Your task to perform on an android device: turn vacation reply on in the gmail app Image 0: 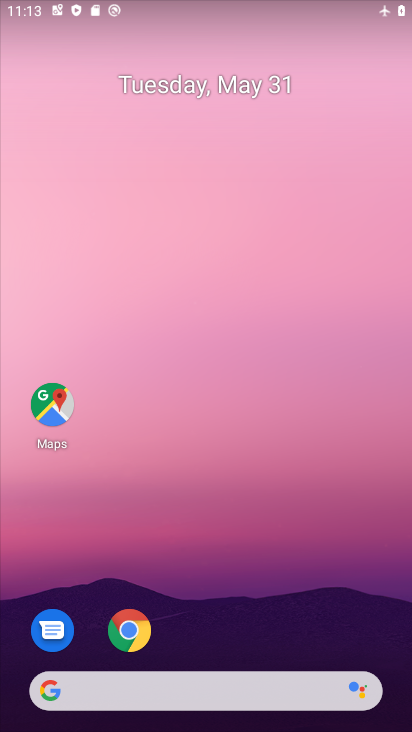
Step 0: drag from (243, 643) to (224, 144)
Your task to perform on an android device: turn vacation reply on in the gmail app Image 1: 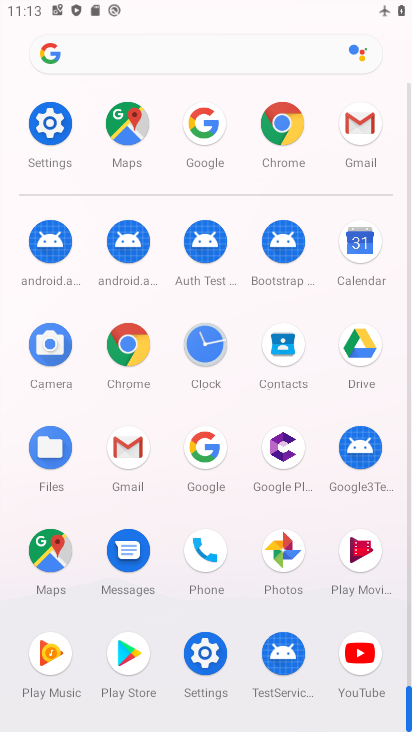
Step 1: click (372, 127)
Your task to perform on an android device: turn vacation reply on in the gmail app Image 2: 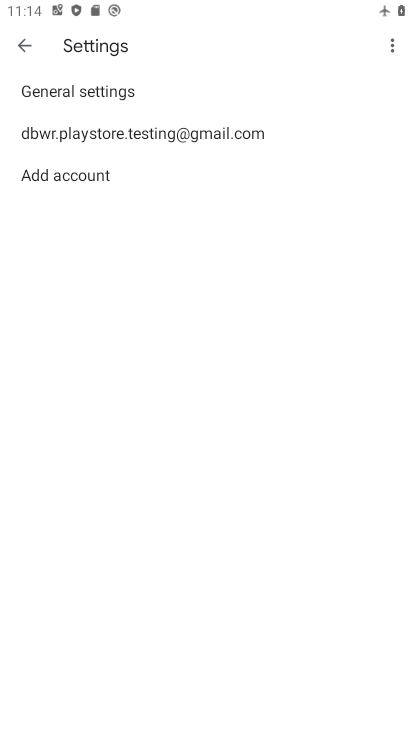
Step 2: click (83, 137)
Your task to perform on an android device: turn vacation reply on in the gmail app Image 3: 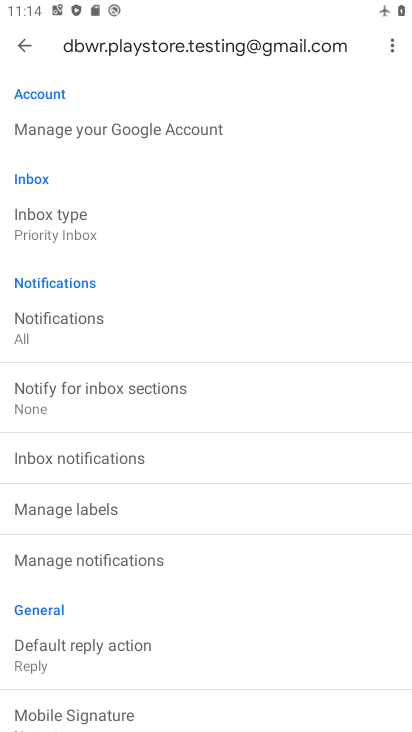
Step 3: drag from (107, 495) to (159, 208)
Your task to perform on an android device: turn vacation reply on in the gmail app Image 4: 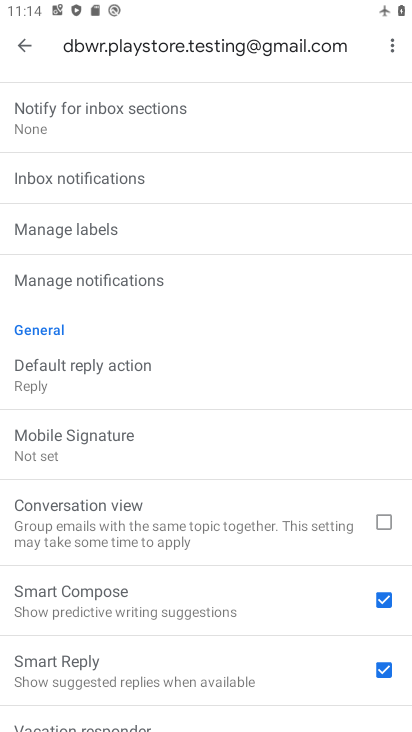
Step 4: drag from (159, 537) to (181, 286)
Your task to perform on an android device: turn vacation reply on in the gmail app Image 5: 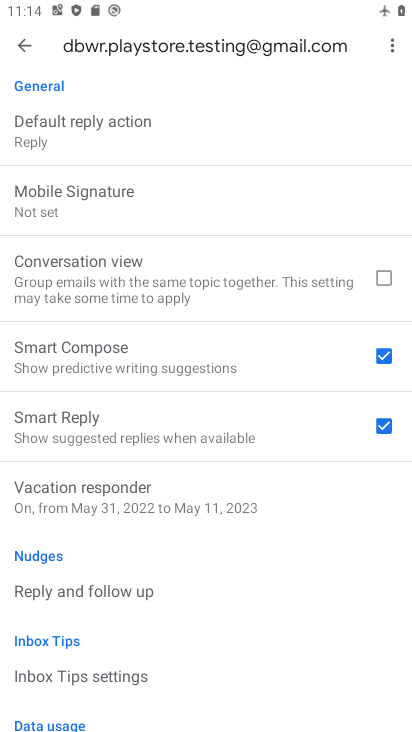
Step 5: drag from (171, 514) to (188, 461)
Your task to perform on an android device: turn vacation reply on in the gmail app Image 6: 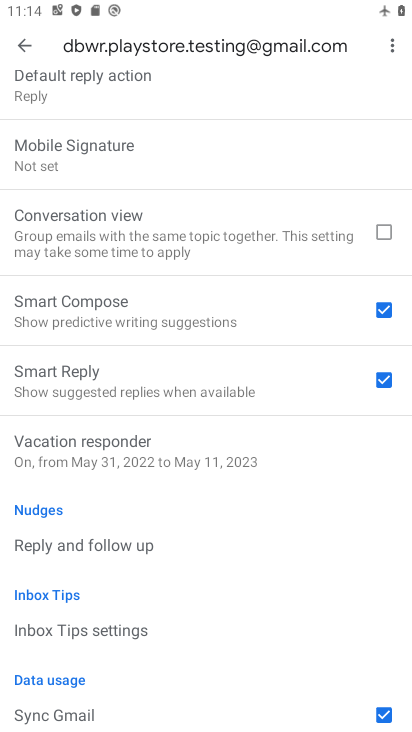
Step 6: click (208, 466)
Your task to perform on an android device: turn vacation reply on in the gmail app Image 7: 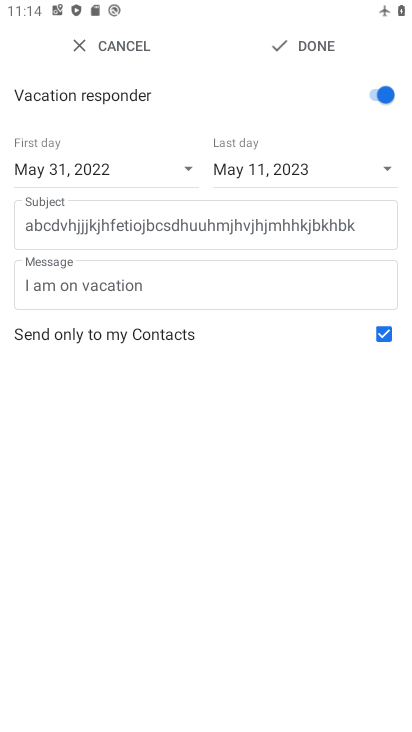
Step 7: task complete